Your task to perform on an android device: turn off airplane mode Image 0: 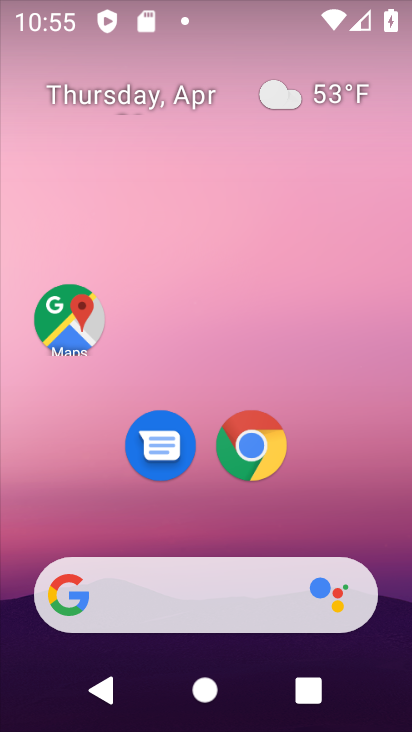
Step 0: drag from (152, 592) to (282, 76)
Your task to perform on an android device: turn off airplane mode Image 1: 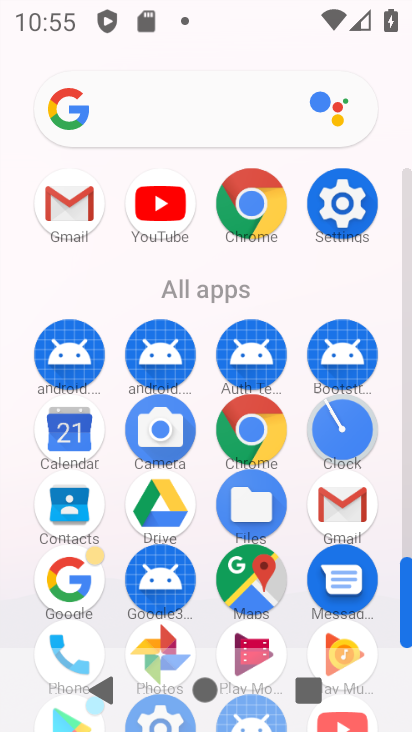
Step 1: click (327, 208)
Your task to perform on an android device: turn off airplane mode Image 2: 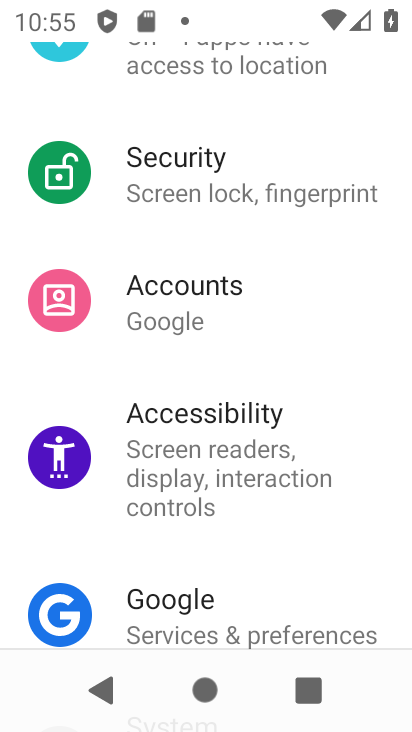
Step 2: drag from (285, 185) to (214, 535)
Your task to perform on an android device: turn off airplane mode Image 3: 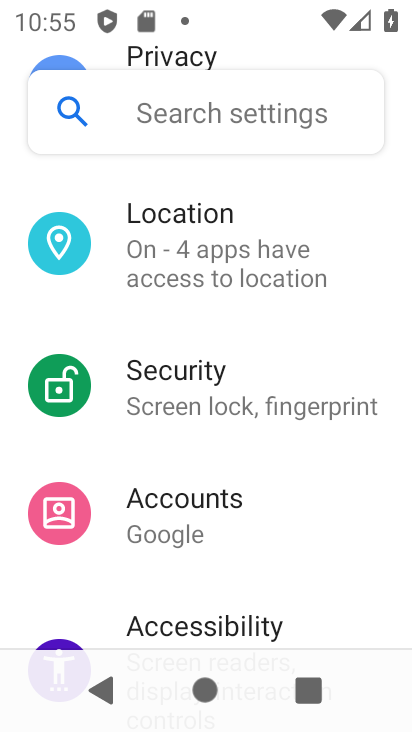
Step 3: drag from (284, 189) to (203, 569)
Your task to perform on an android device: turn off airplane mode Image 4: 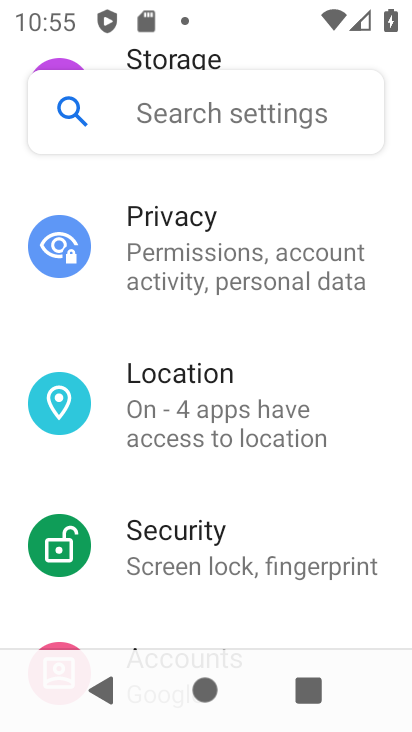
Step 4: drag from (281, 197) to (236, 591)
Your task to perform on an android device: turn off airplane mode Image 5: 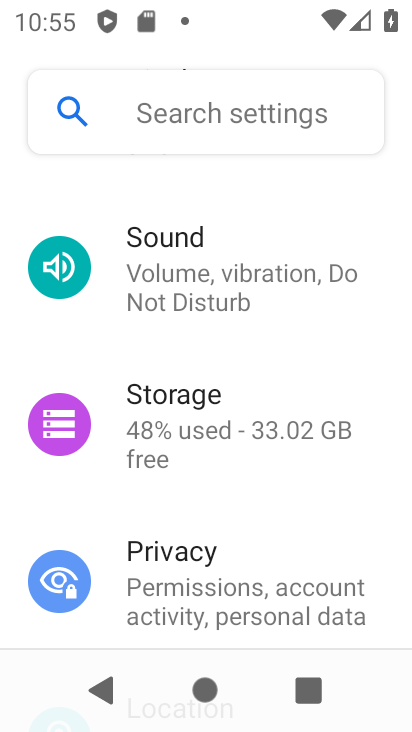
Step 5: drag from (292, 247) to (251, 580)
Your task to perform on an android device: turn off airplane mode Image 6: 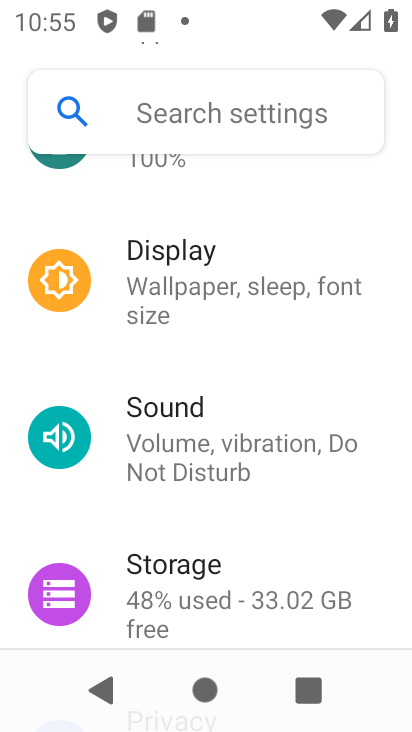
Step 6: drag from (283, 177) to (190, 652)
Your task to perform on an android device: turn off airplane mode Image 7: 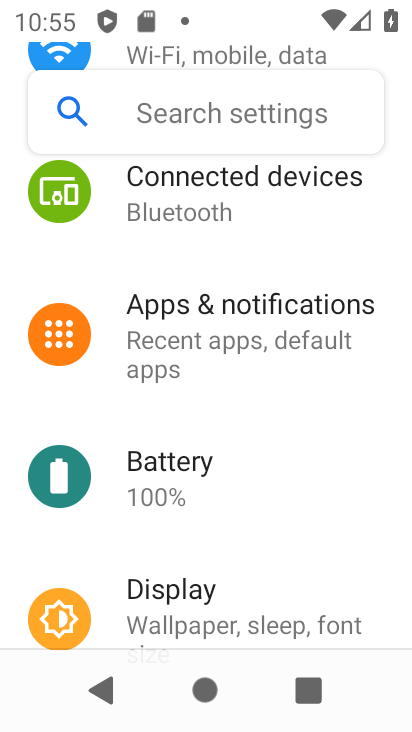
Step 7: drag from (303, 246) to (254, 673)
Your task to perform on an android device: turn off airplane mode Image 8: 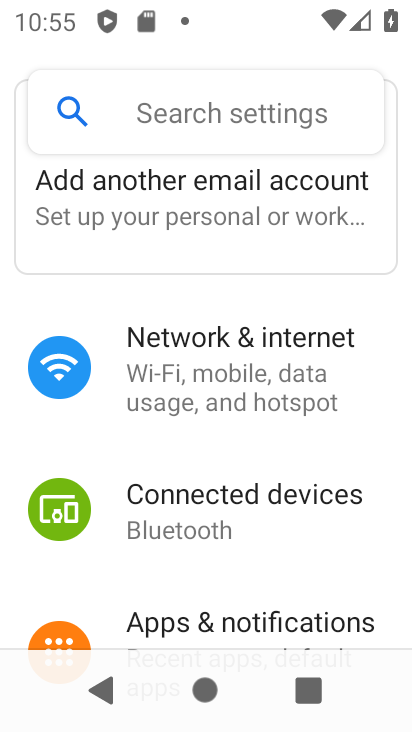
Step 8: click (253, 361)
Your task to perform on an android device: turn off airplane mode Image 9: 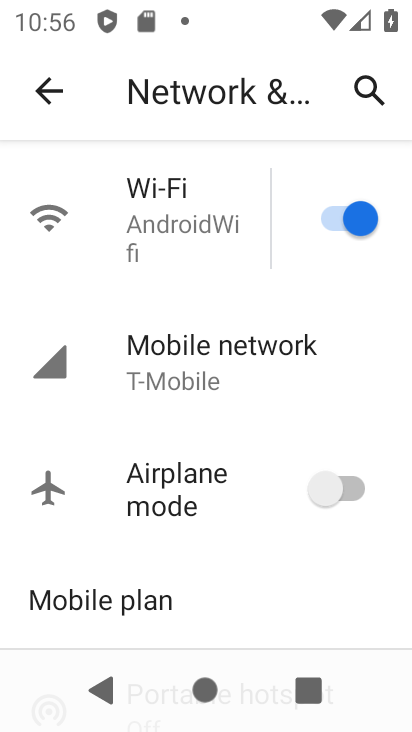
Step 9: task complete